Your task to perform on an android device: Open privacy settings Image 0: 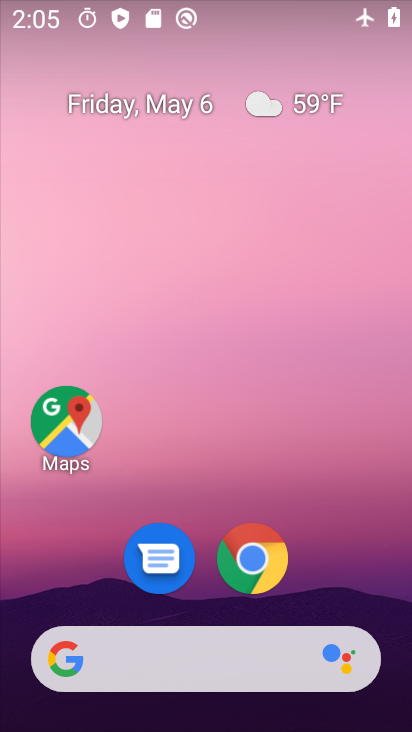
Step 0: drag from (217, 726) to (214, 315)
Your task to perform on an android device: Open privacy settings Image 1: 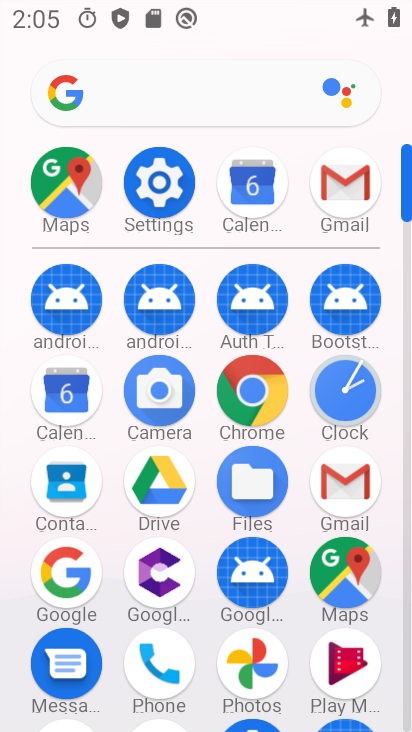
Step 1: click (162, 200)
Your task to perform on an android device: Open privacy settings Image 2: 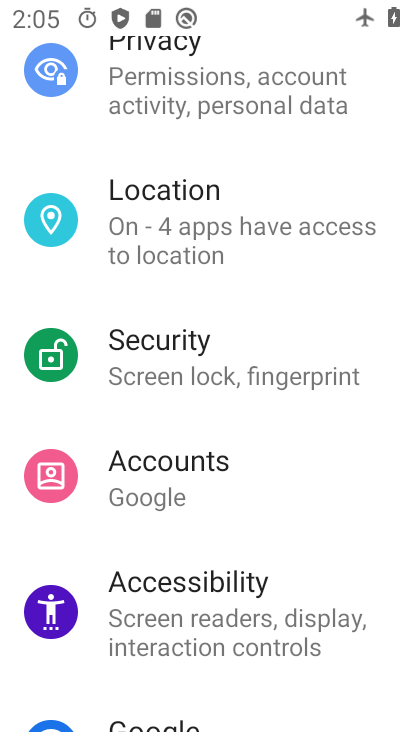
Step 2: drag from (241, 675) to (262, 249)
Your task to perform on an android device: Open privacy settings Image 3: 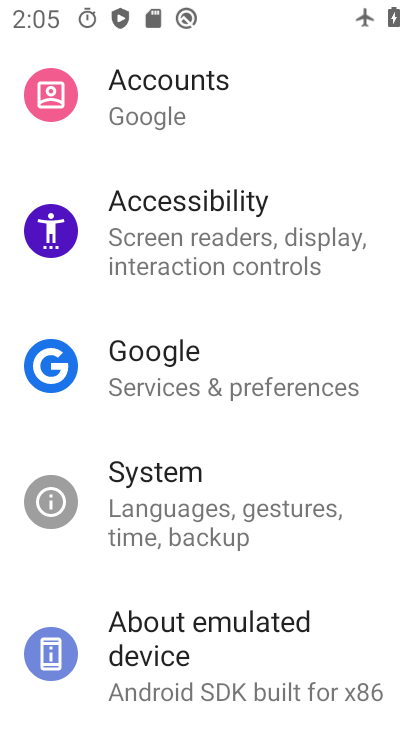
Step 3: drag from (244, 131) to (238, 502)
Your task to perform on an android device: Open privacy settings Image 4: 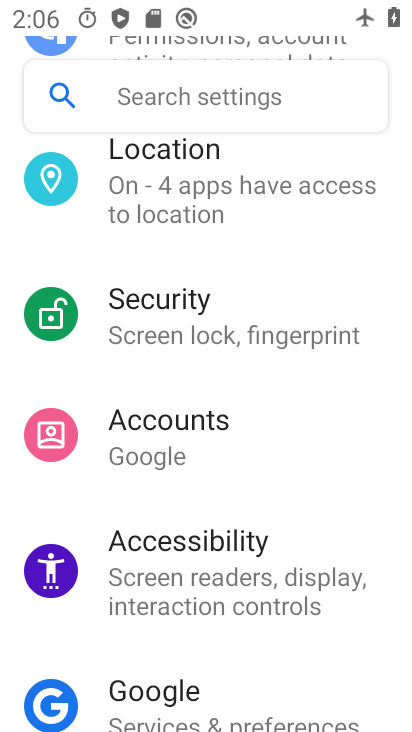
Step 4: drag from (206, 169) to (207, 547)
Your task to perform on an android device: Open privacy settings Image 5: 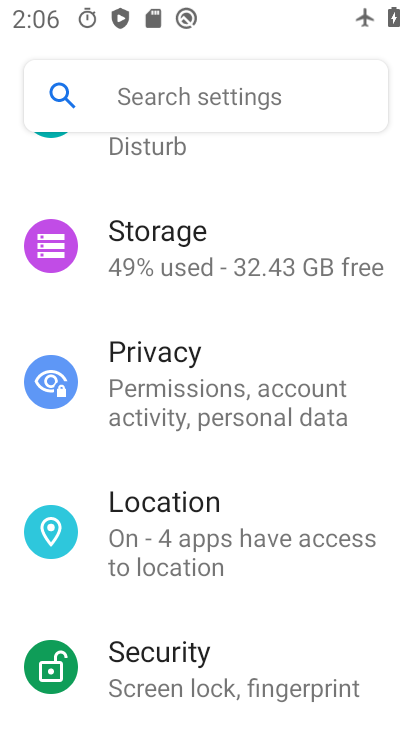
Step 5: click (201, 394)
Your task to perform on an android device: Open privacy settings Image 6: 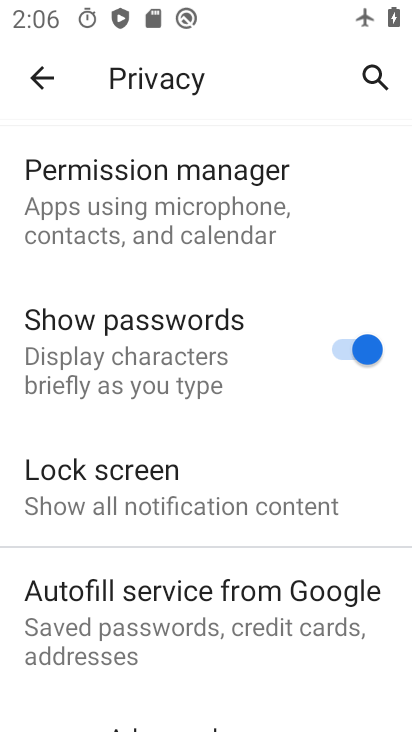
Step 6: task complete